Your task to perform on an android device: See recent photos Image 0: 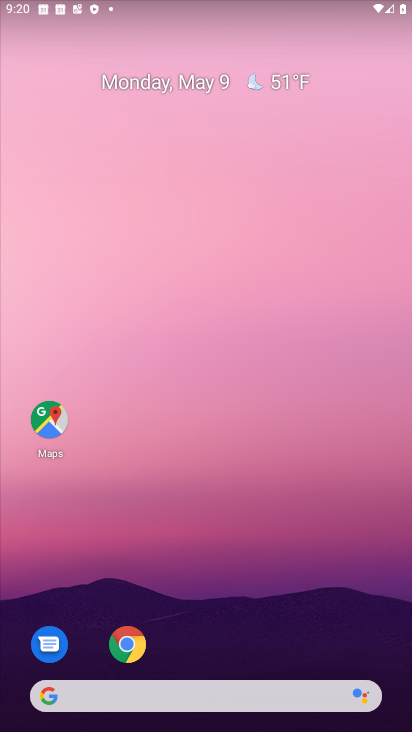
Step 0: drag from (244, 674) to (112, 7)
Your task to perform on an android device: See recent photos Image 1: 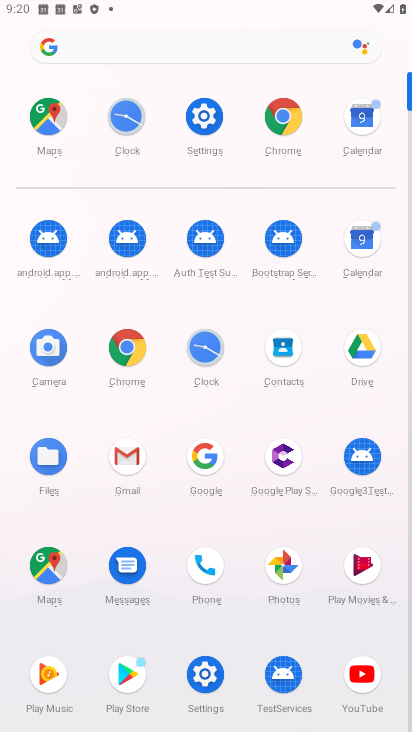
Step 1: click (291, 556)
Your task to perform on an android device: See recent photos Image 2: 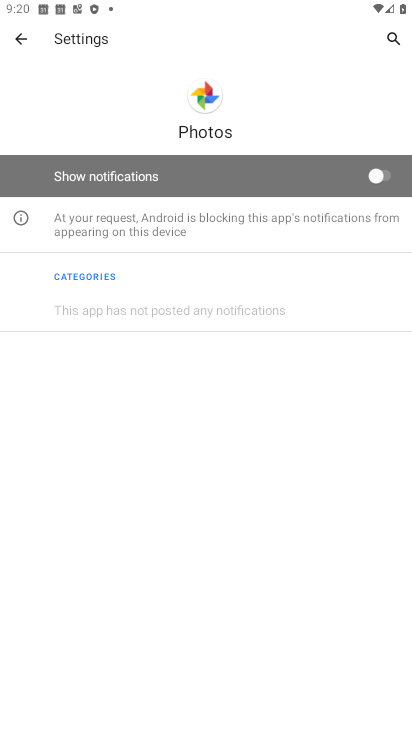
Step 2: click (7, 33)
Your task to perform on an android device: See recent photos Image 3: 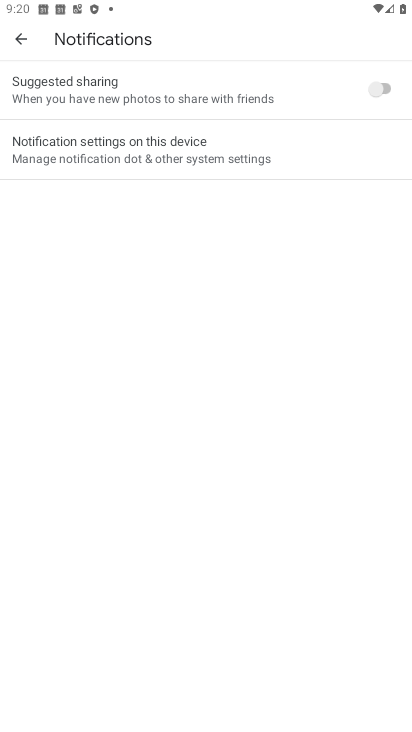
Step 3: click (8, 34)
Your task to perform on an android device: See recent photos Image 4: 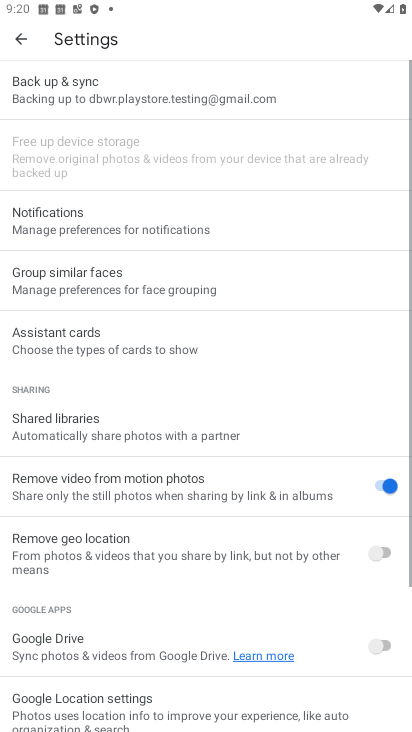
Step 4: click (13, 36)
Your task to perform on an android device: See recent photos Image 5: 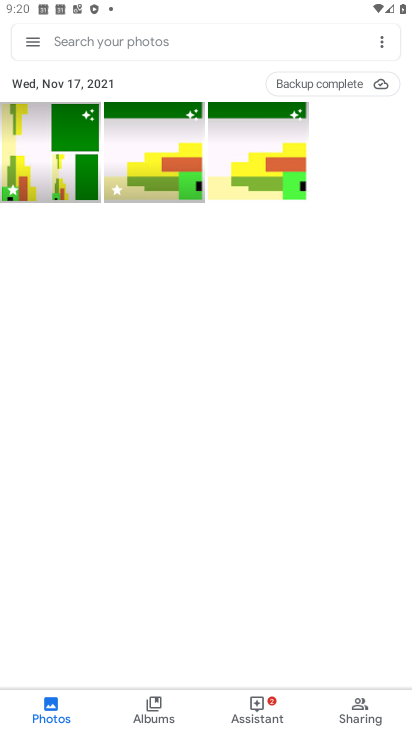
Step 5: task complete